Your task to perform on an android device: open chrome and create a bookmark for the current page Image 0: 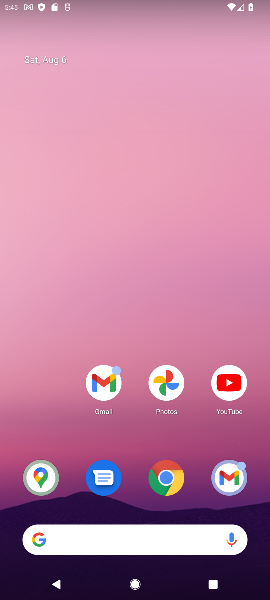
Step 0: click (164, 475)
Your task to perform on an android device: open chrome and create a bookmark for the current page Image 1: 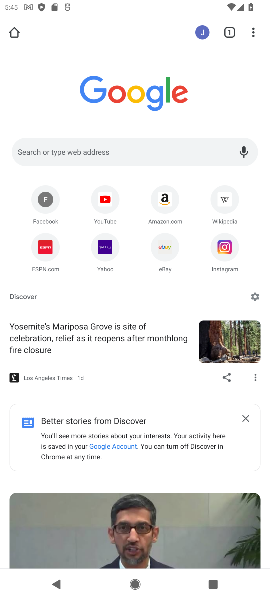
Step 1: task complete